Your task to perform on an android device: set default search engine in the chrome app Image 0: 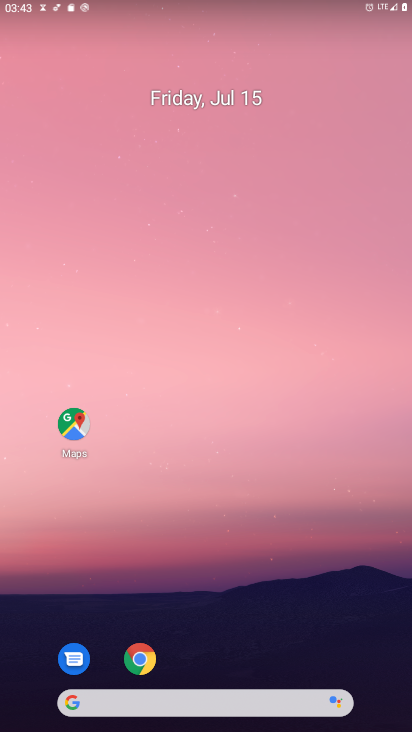
Step 0: drag from (219, 663) to (286, 98)
Your task to perform on an android device: set default search engine in the chrome app Image 1: 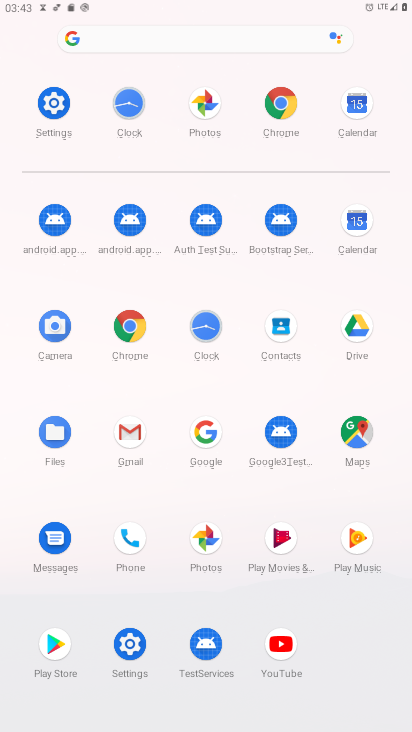
Step 1: click (283, 108)
Your task to perform on an android device: set default search engine in the chrome app Image 2: 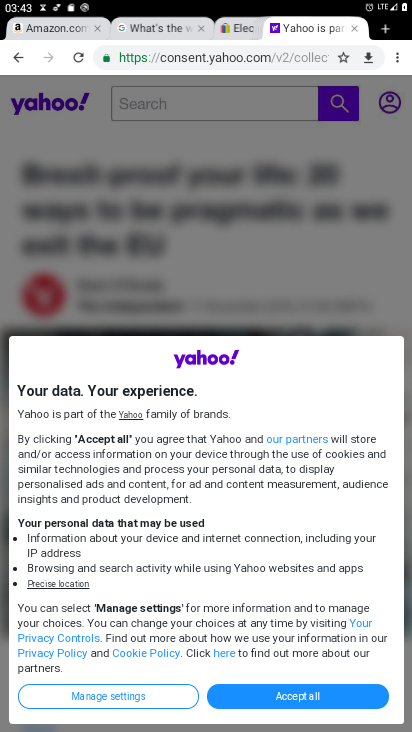
Step 2: click (398, 45)
Your task to perform on an android device: set default search engine in the chrome app Image 3: 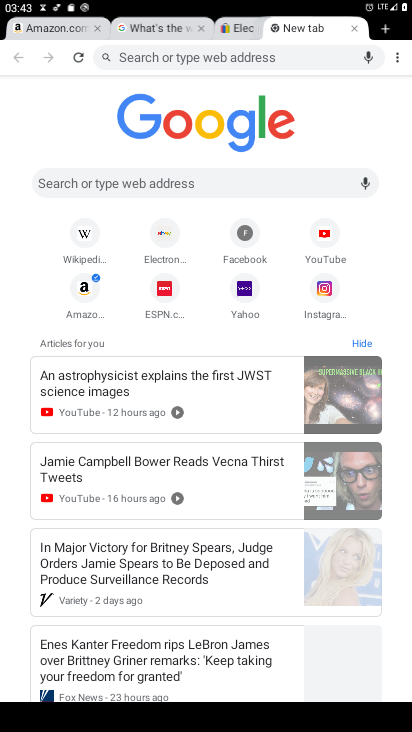
Step 3: click (399, 55)
Your task to perform on an android device: set default search engine in the chrome app Image 4: 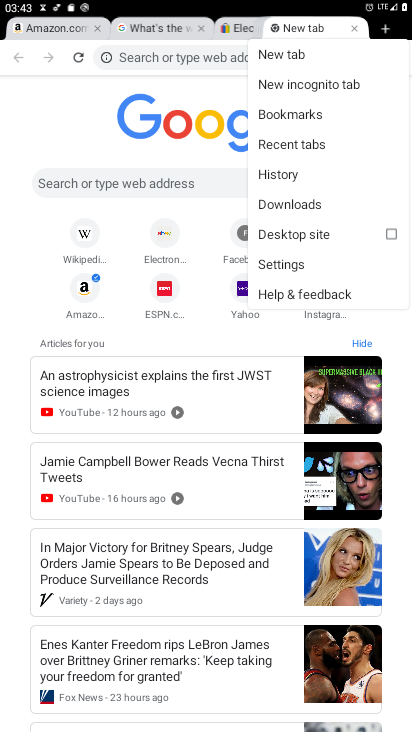
Step 4: click (278, 262)
Your task to perform on an android device: set default search engine in the chrome app Image 5: 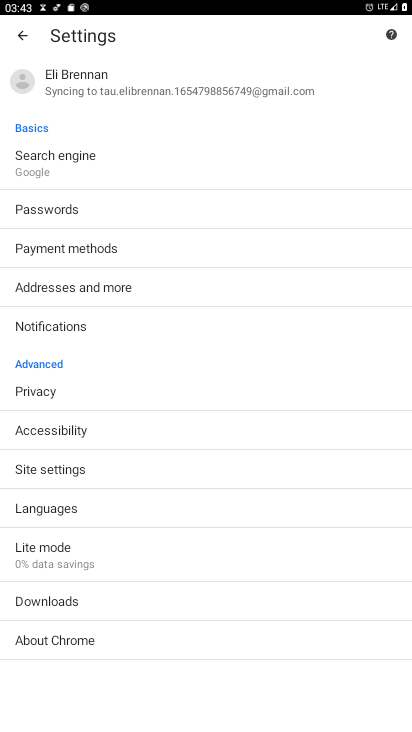
Step 5: click (109, 162)
Your task to perform on an android device: set default search engine in the chrome app Image 6: 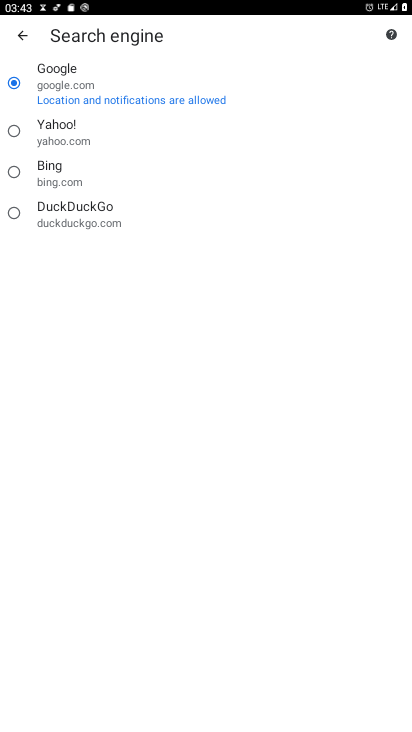
Step 6: click (42, 167)
Your task to perform on an android device: set default search engine in the chrome app Image 7: 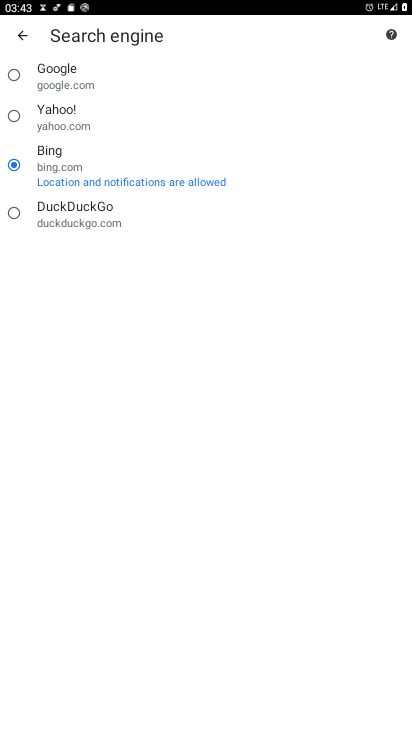
Step 7: task complete